Your task to perform on an android device: Open calendar and show me the fourth week of next month Image 0: 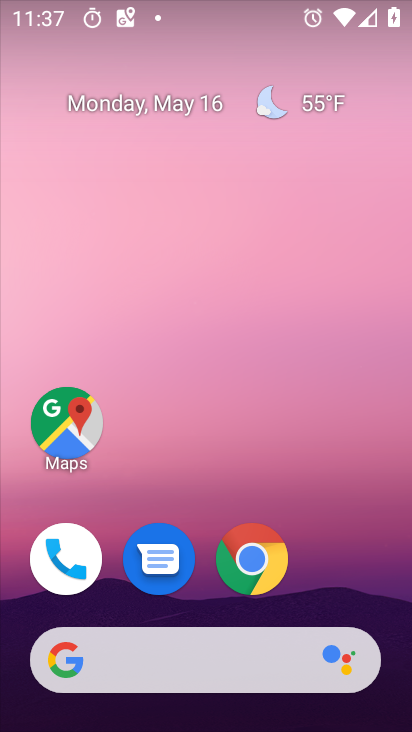
Step 0: drag from (380, 578) to (314, 162)
Your task to perform on an android device: Open calendar and show me the fourth week of next month Image 1: 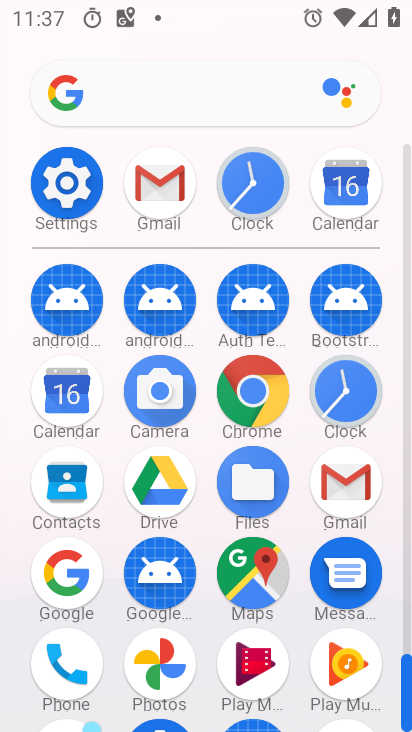
Step 1: click (72, 404)
Your task to perform on an android device: Open calendar and show me the fourth week of next month Image 2: 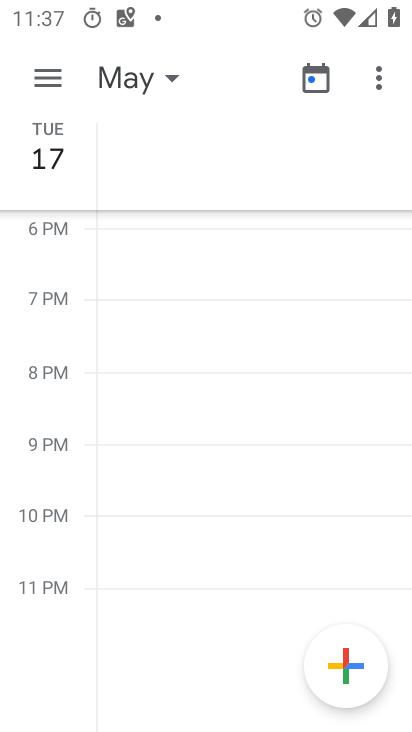
Step 2: click (121, 72)
Your task to perform on an android device: Open calendar and show me the fourth week of next month Image 3: 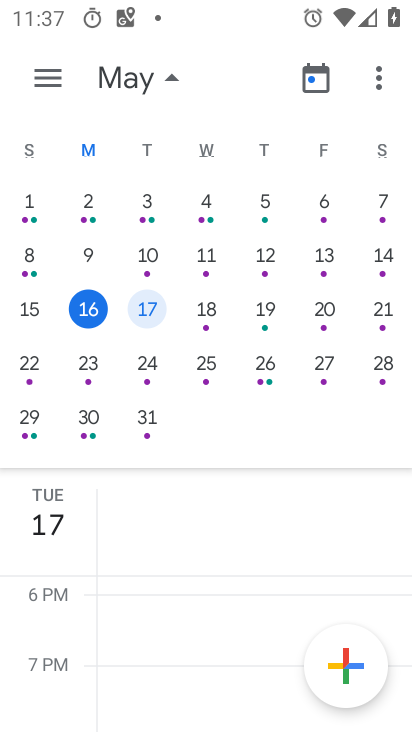
Step 3: drag from (407, 281) to (54, 287)
Your task to perform on an android device: Open calendar and show me the fourth week of next month Image 4: 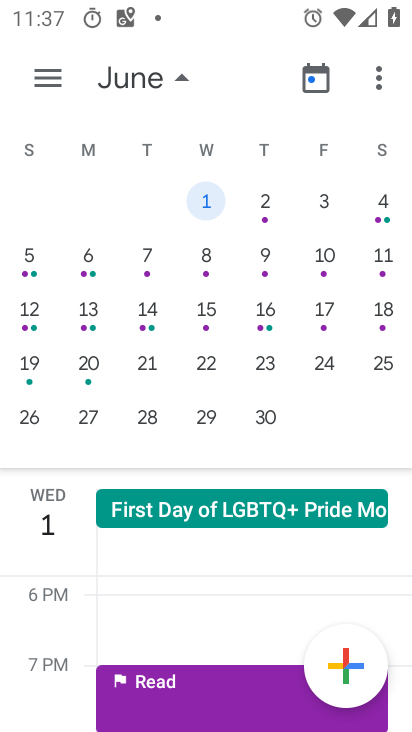
Step 4: click (37, 411)
Your task to perform on an android device: Open calendar and show me the fourth week of next month Image 5: 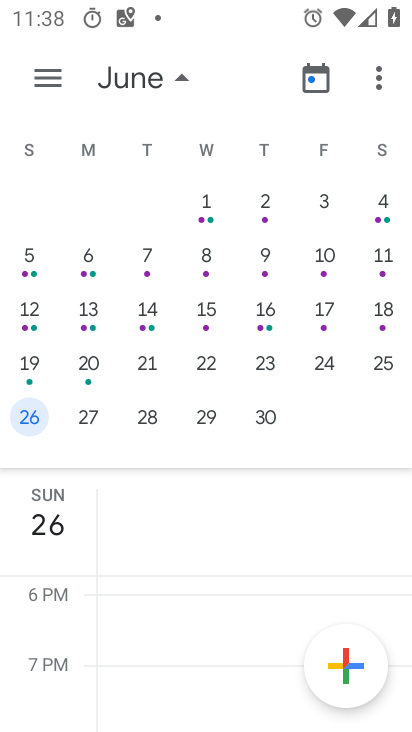
Step 5: task complete